Your task to perform on an android device: Go to Android settings Image 0: 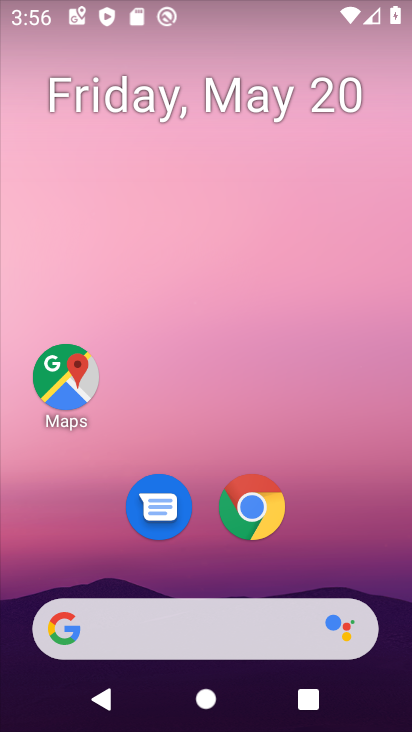
Step 0: drag from (322, 561) to (282, 59)
Your task to perform on an android device: Go to Android settings Image 1: 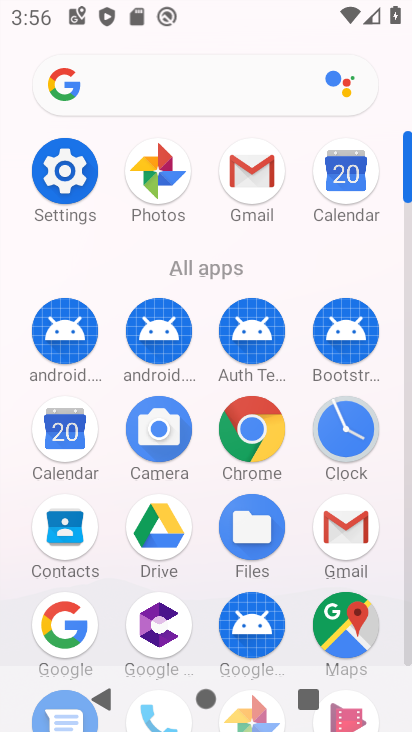
Step 1: click (65, 168)
Your task to perform on an android device: Go to Android settings Image 2: 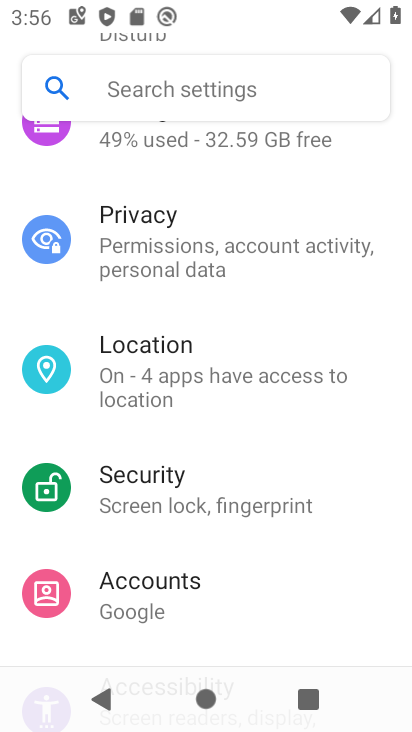
Step 2: task complete